Your task to perform on an android device: open wifi settings Image 0: 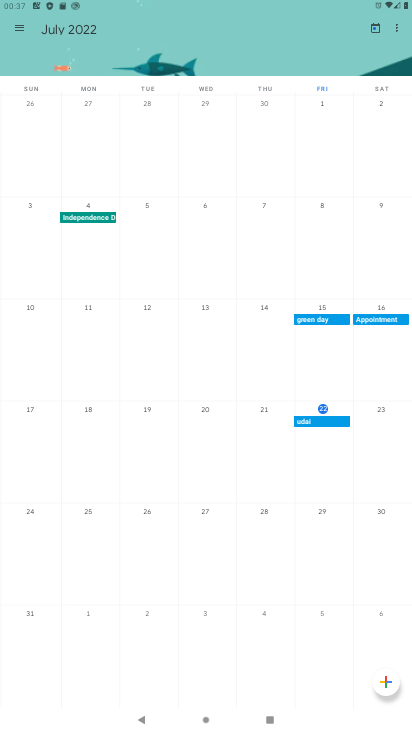
Step 0: press home button
Your task to perform on an android device: open wifi settings Image 1: 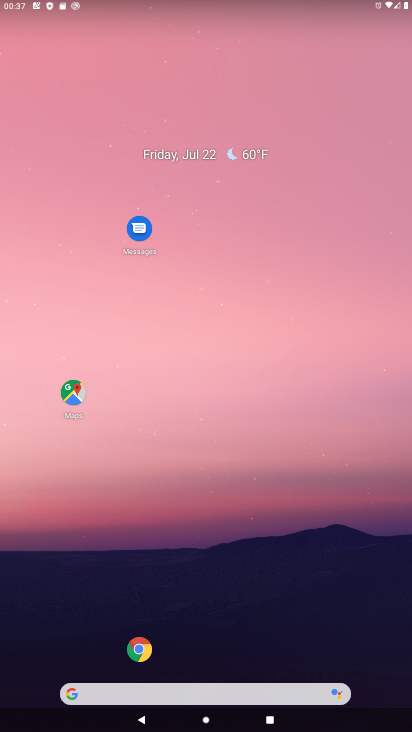
Step 1: drag from (77, 556) to (142, 210)
Your task to perform on an android device: open wifi settings Image 2: 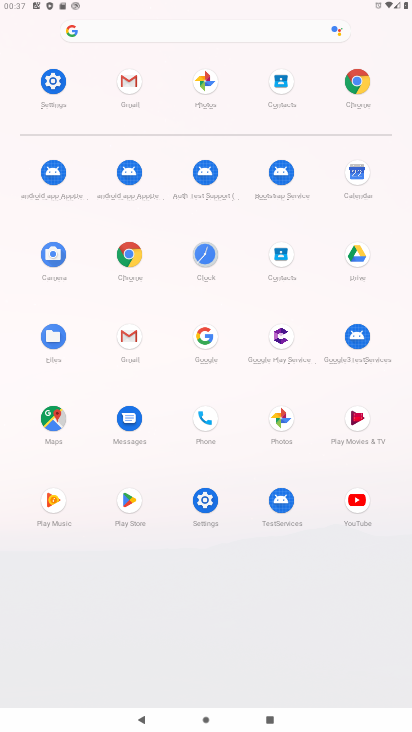
Step 2: click (209, 495)
Your task to perform on an android device: open wifi settings Image 3: 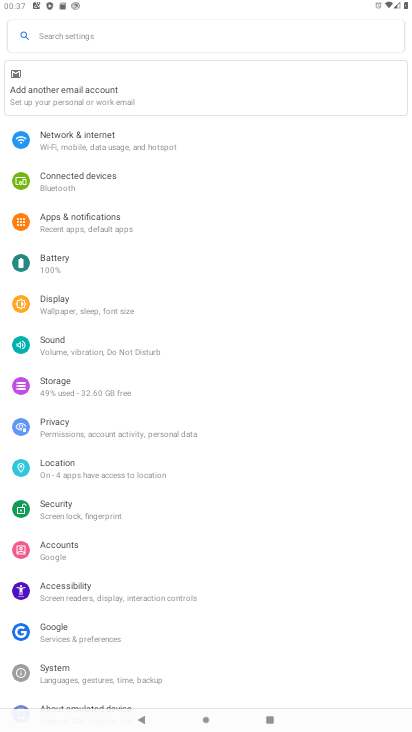
Step 3: click (69, 140)
Your task to perform on an android device: open wifi settings Image 4: 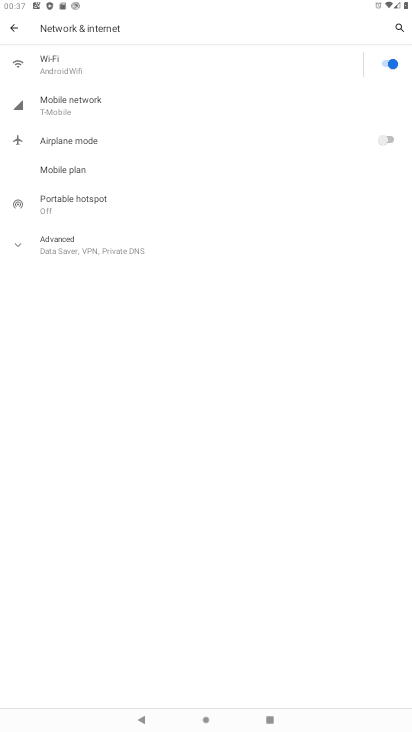
Step 4: task complete